Your task to perform on an android device: Turn off the flashlight Image 0: 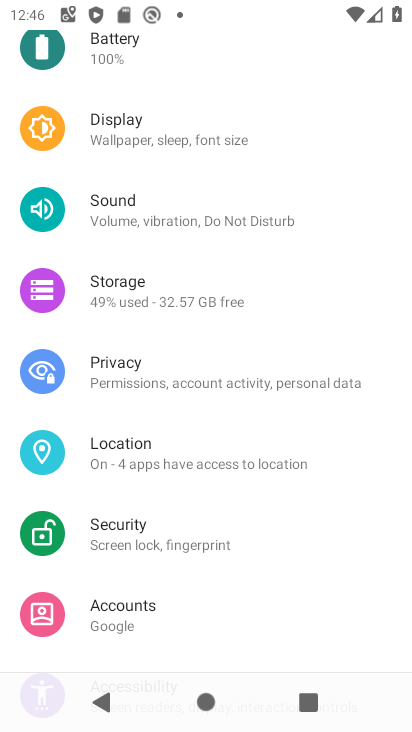
Step 0: drag from (251, 135) to (197, 581)
Your task to perform on an android device: Turn off the flashlight Image 1: 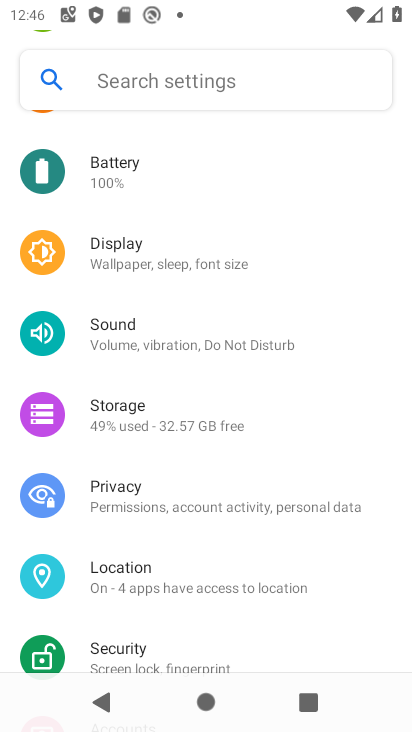
Step 1: click (202, 68)
Your task to perform on an android device: Turn off the flashlight Image 2: 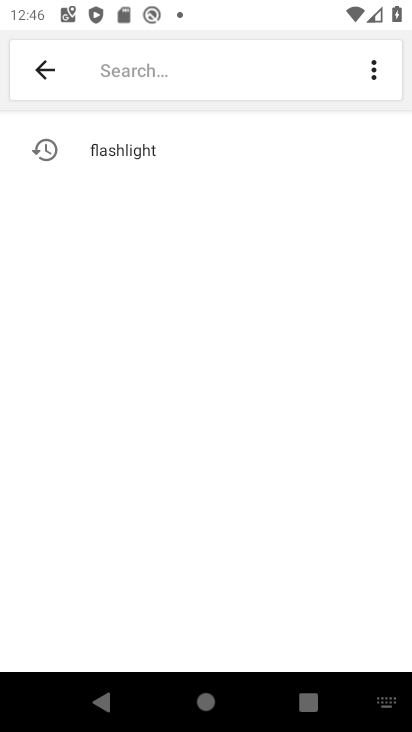
Step 2: type "flashlight"
Your task to perform on an android device: Turn off the flashlight Image 3: 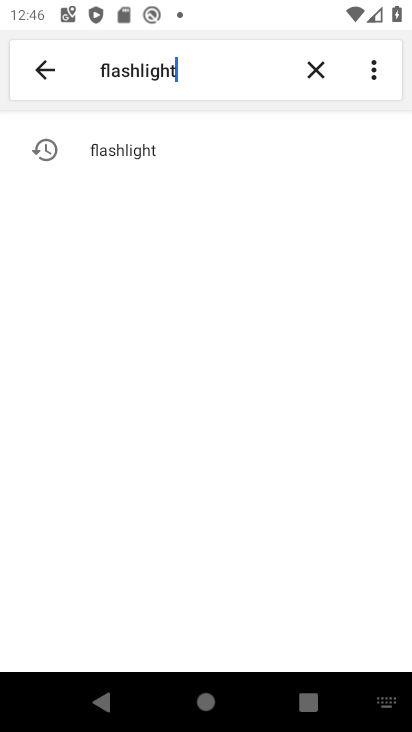
Step 3: click (121, 156)
Your task to perform on an android device: Turn off the flashlight Image 4: 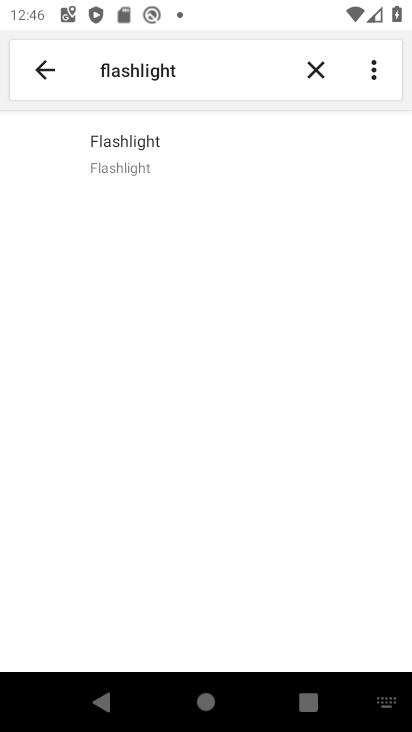
Step 4: click (105, 145)
Your task to perform on an android device: Turn off the flashlight Image 5: 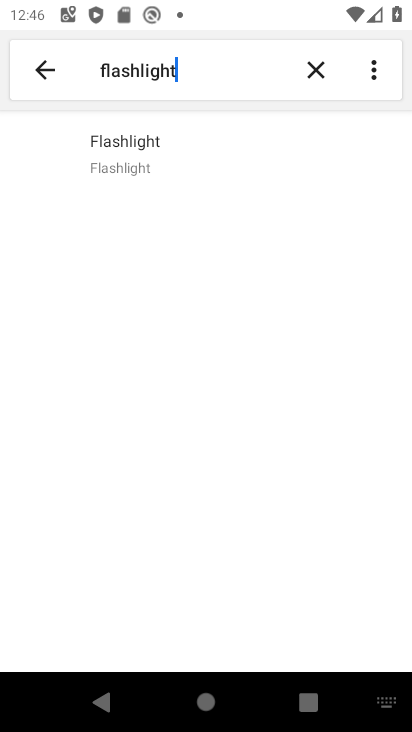
Step 5: task complete